Your task to perform on an android device: Open Google Chrome Image 0: 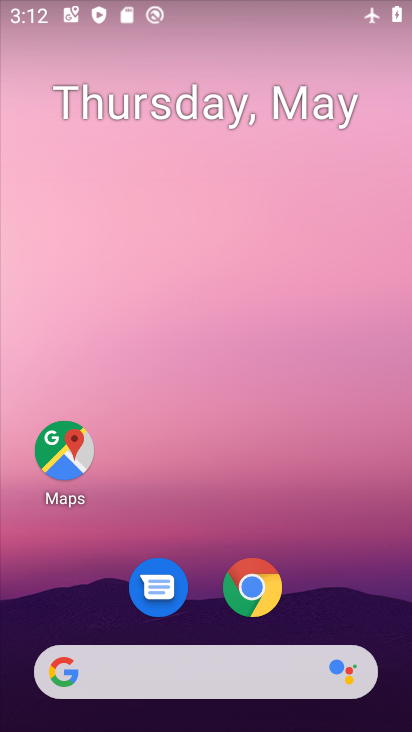
Step 0: drag from (260, 578) to (336, 90)
Your task to perform on an android device: Open Google Chrome Image 1: 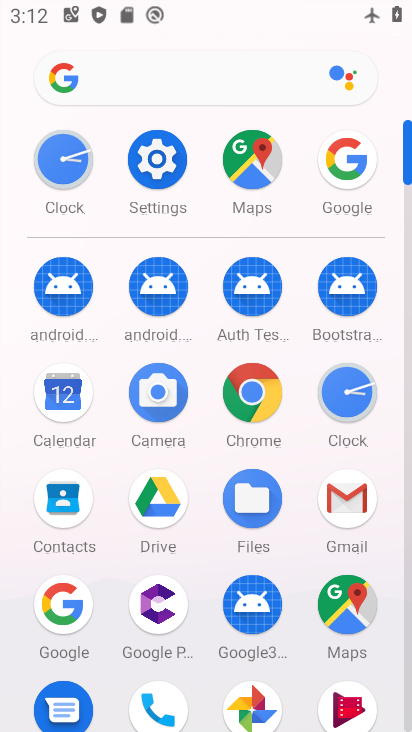
Step 1: click (266, 394)
Your task to perform on an android device: Open Google Chrome Image 2: 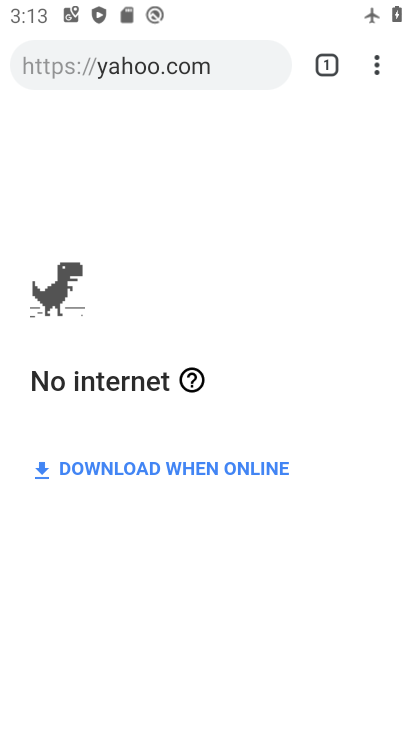
Step 2: task complete